Your task to perform on an android device: Open Youtube and go to "Your channel" Image 0: 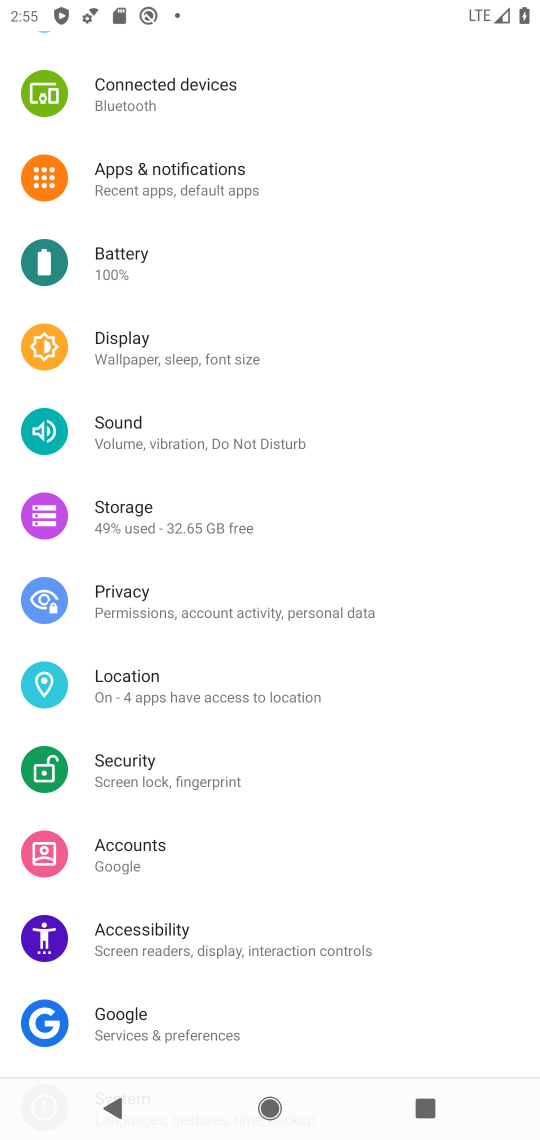
Step 0: press home button
Your task to perform on an android device: Open Youtube and go to "Your channel" Image 1: 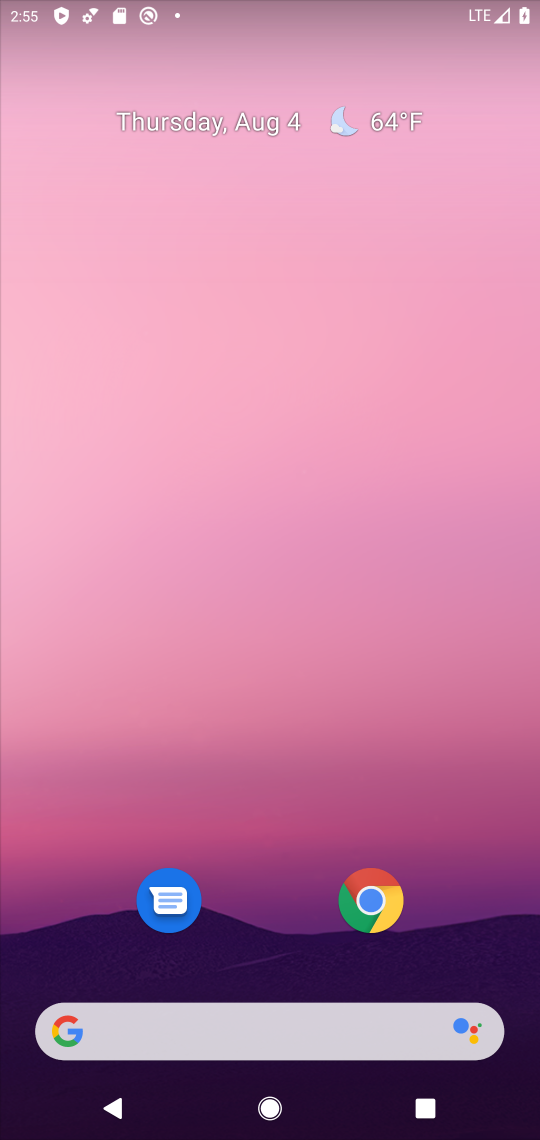
Step 1: drag from (497, 968) to (325, 224)
Your task to perform on an android device: Open Youtube and go to "Your channel" Image 2: 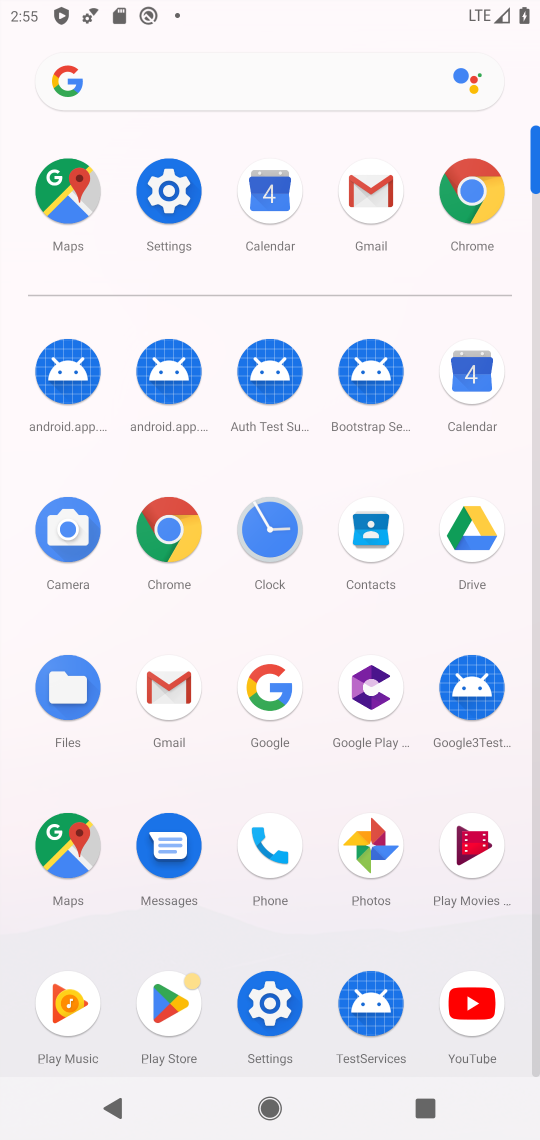
Step 2: click (466, 1017)
Your task to perform on an android device: Open Youtube and go to "Your channel" Image 3: 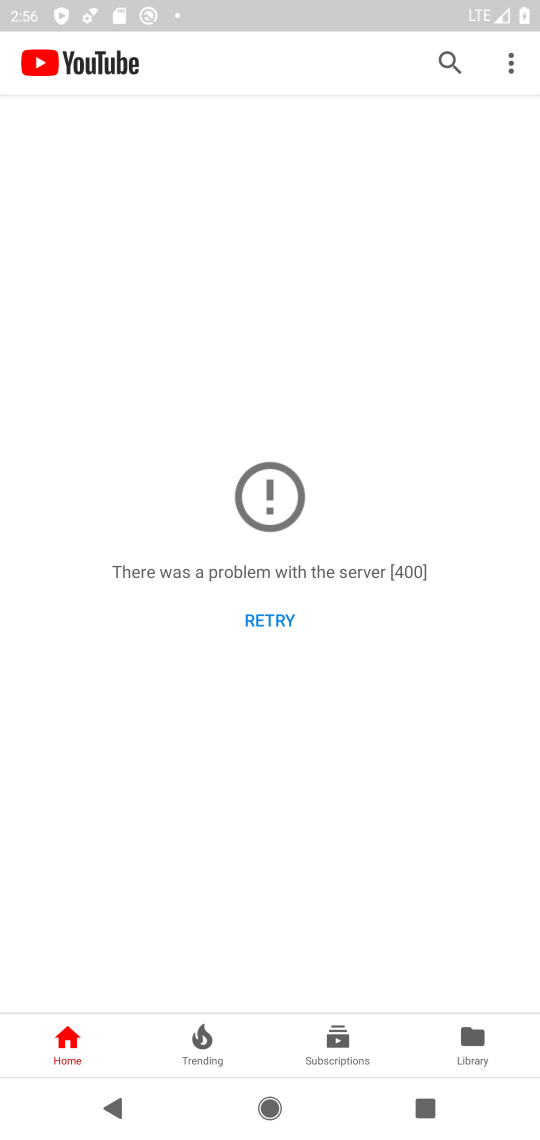
Step 3: task complete